Your task to perform on an android device: Open CNN.com Image 0: 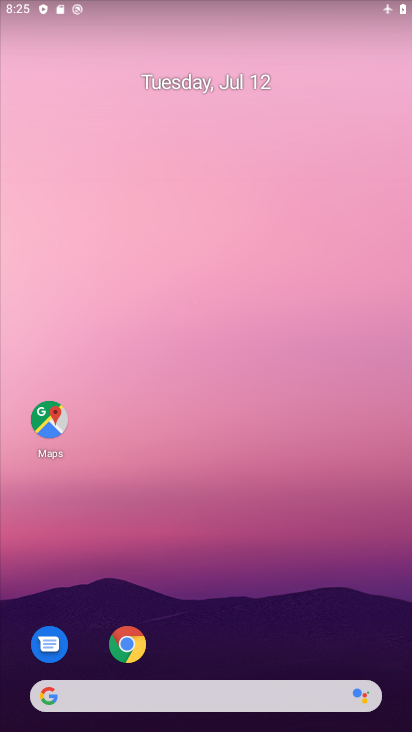
Step 0: click (124, 655)
Your task to perform on an android device: Open CNN.com Image 1: 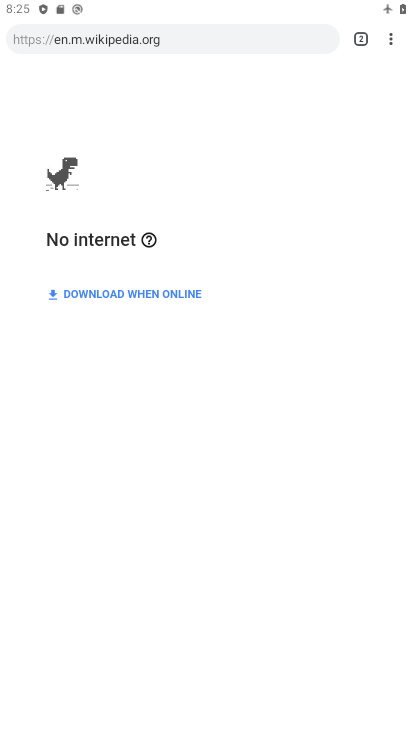
Step 1: click (354, 34)
Your task to perform on an android device: Open CNN.com Image 2: 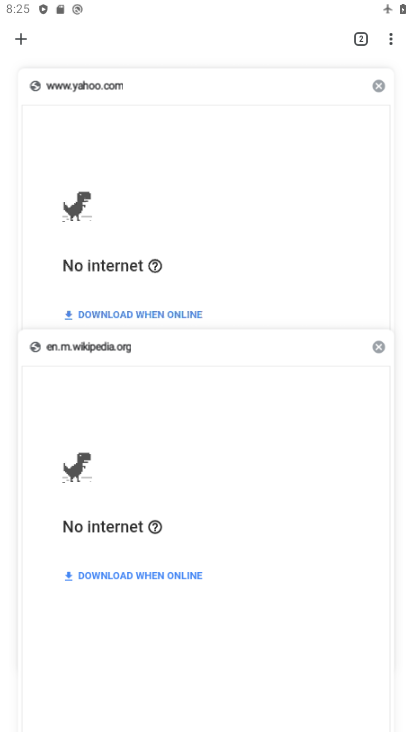
Step 2: click (13, 35)
Your task to perform on an android device: Open CNN.com Image 3: 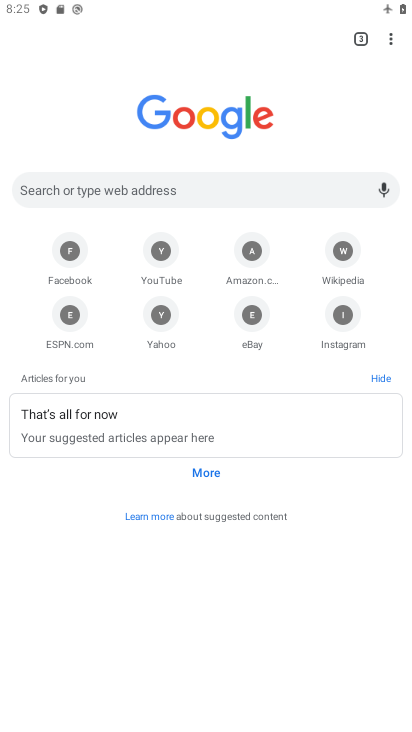
Step 3: click (115, 194)
Your task to perform on an android device: Open CNN.com Image 4: 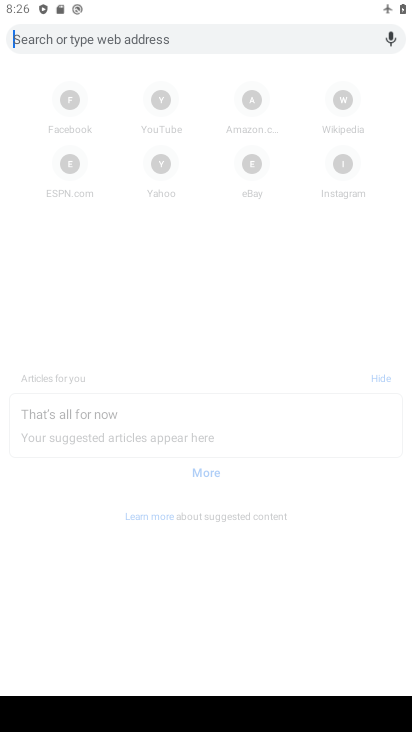
Step 4: type "CNN.com"
Your task to perform on an android device: Open CNN.com Image 5: 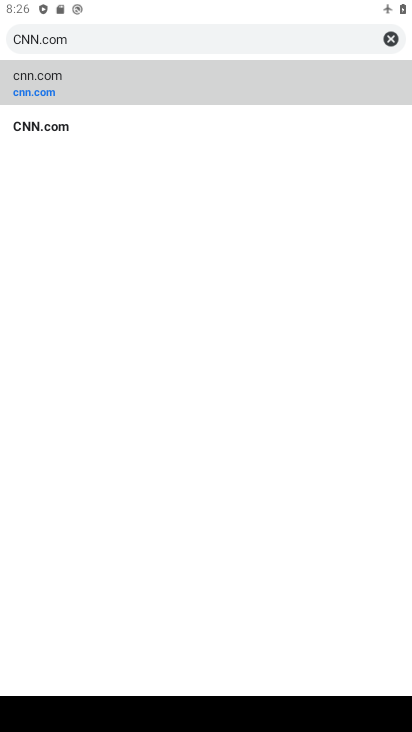
Step 5: click (163, 76)
Your task to perform on an android device: Open CNN.com Image 6: 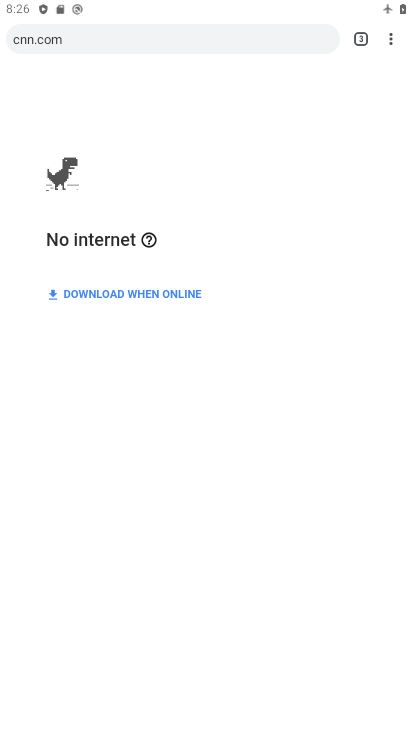
Step 6: task complete